Your task to perform on an android device: Open Android settings Image 0: 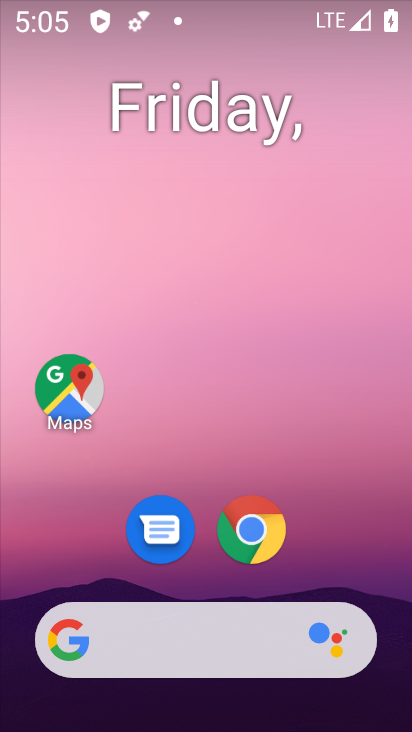
Step 0: drag from (341, 548) to (263, 56)
Your task to perform on an android device: Open Android settings Image 1: 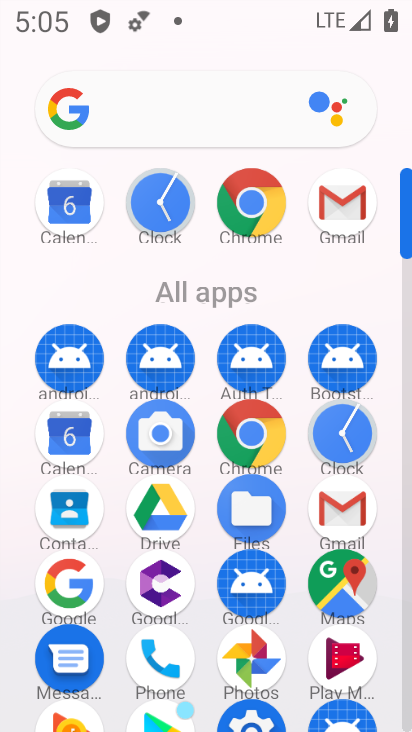
Step 1: click (243, 715)
Your task to perform on an android device: Open Android settings Image 2: 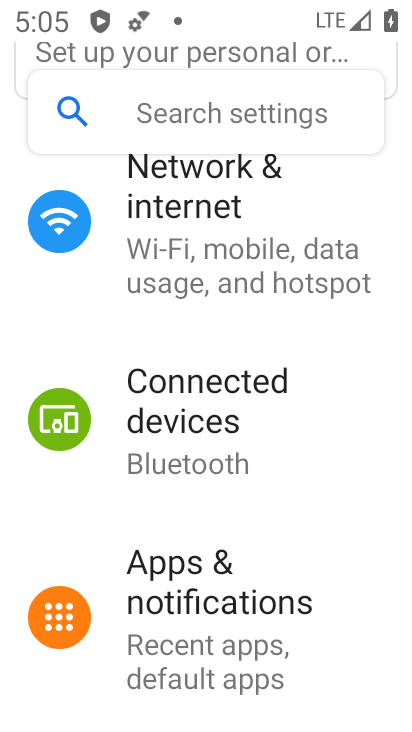
Step 2: drag from (298, 652) to (245, 66)
Your task to perform on an android device: Open Android settings Image 3: 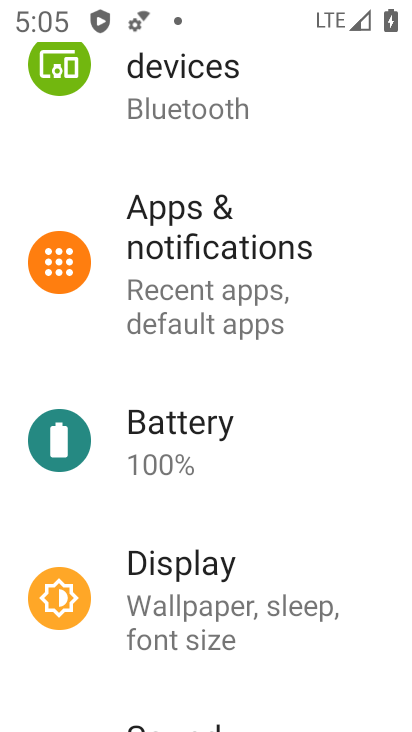
Step 3: drag from (275, 606) to (275, 56)
Your task to perform on an android device: Open Android settings Image 4: 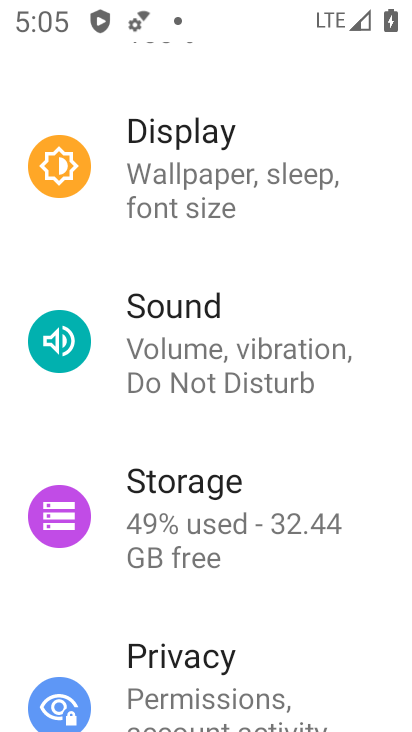
Step 4: drag from (242, 614) to (229, 181)
Your task to perform on an android device: Open Android settings Image 5: 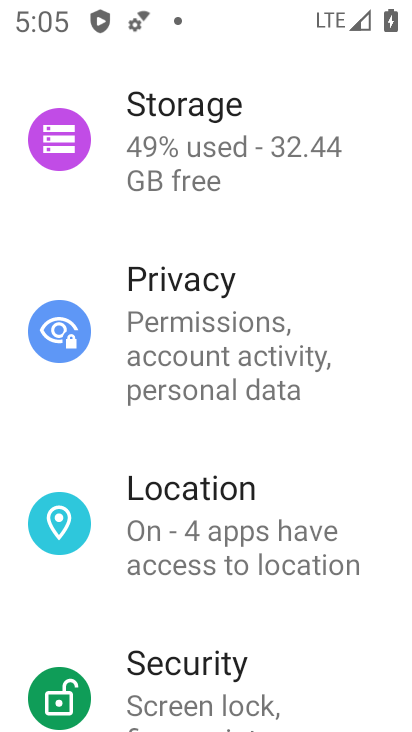
Step 5: drag from (234, 304) to (226, 118)
Your task to perform on an android device: Open Android settings Image 6: 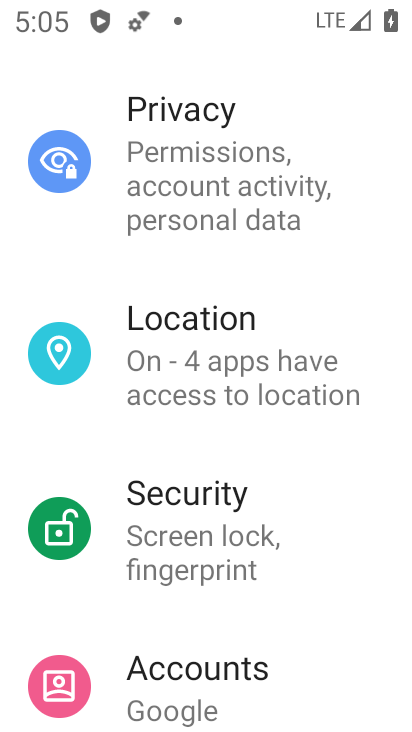
Step 6: drag from (281, 673) to (324, 69)
Your task to perform on an android device: Open Android settings Image 7: 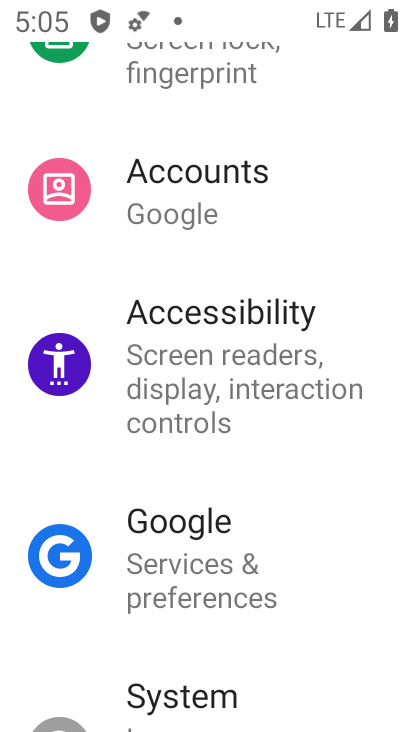
Step 7: drag from (259, 569) to (276, 128)
Your task to perform on an android device: Open Android settings Image 8: 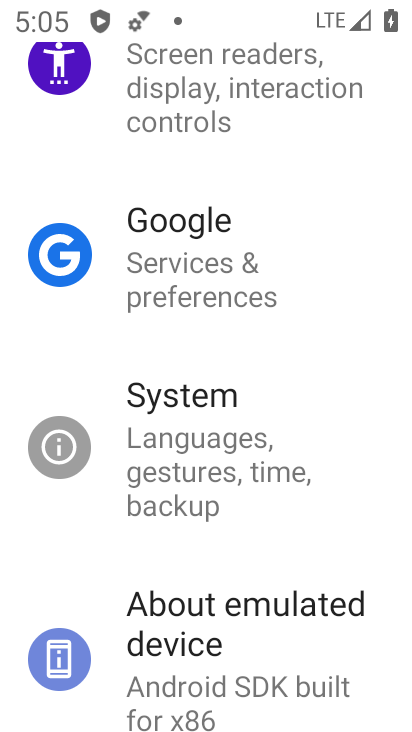
Step 8: drag from (200, 611) to (248, 311)
Your task to perform on an android device: Open Android settings Image 9: 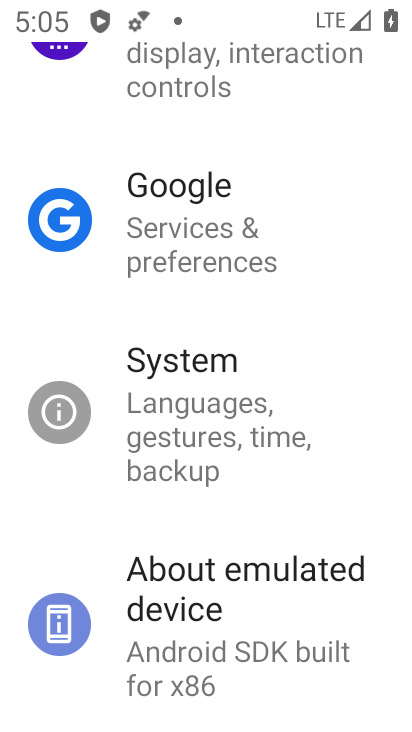
Step 9: drag from (274, 612) to (295, 308)
Your task to perform on an android device: Open Android settings Image 10: 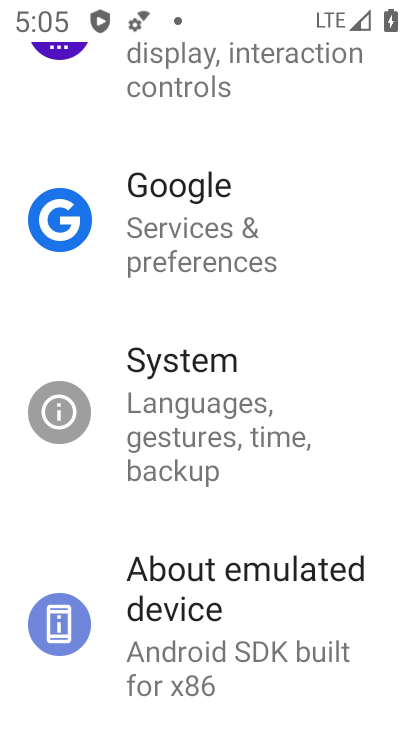
Step 10: click (242, 607)
Your task to perform on an android device: Open Android settings Image 11: 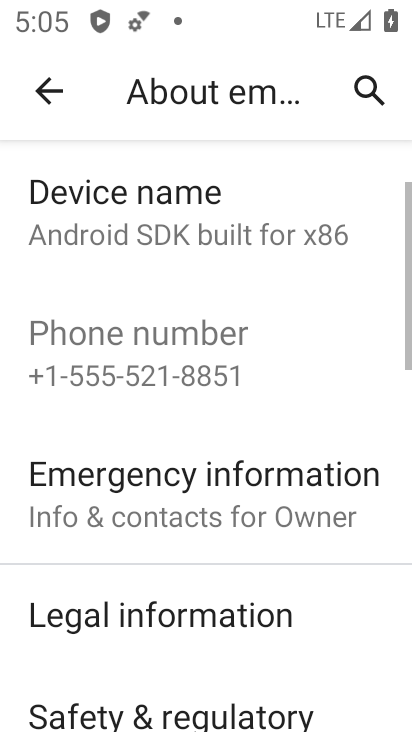
Step 11: drag from (298, 445) to (273, 155)
Your task to perform on an android device: Open Android settings Image 12: 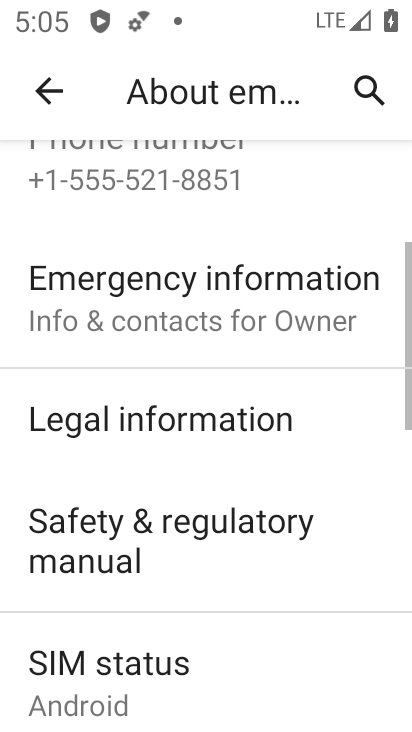
Step 12: drag from (225, 613) to (246, 195)
Your task to perform on an android device: Open Android settings Image 13: 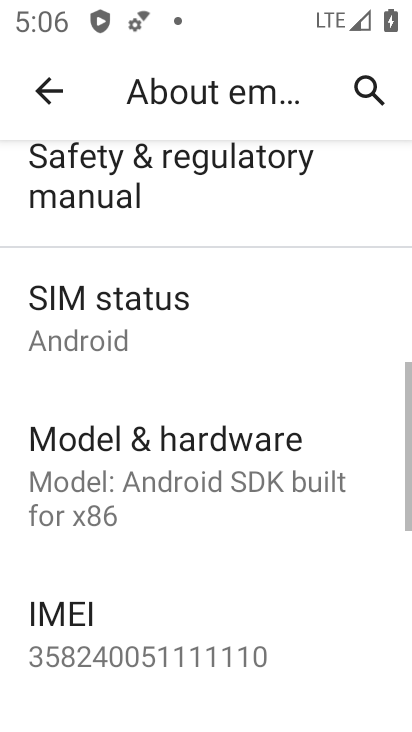
Step 13: drag from (155, 532) to (174, 215)
Your task to perform on an android device: Open Android settings Image 14: 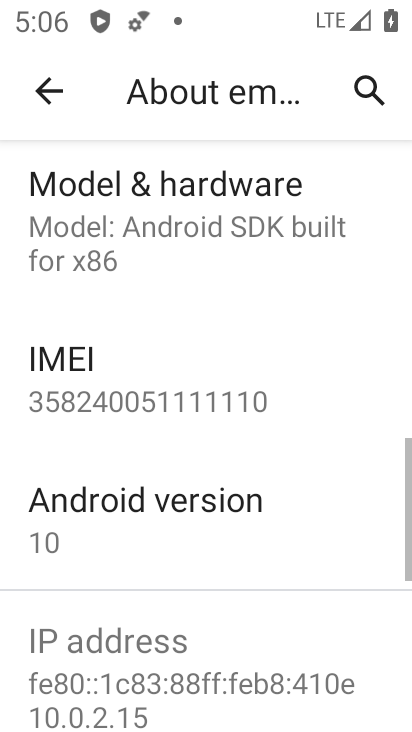
Step 14: click (182, 507)
Your task to perform on an android device: Open Android settings Image 15: 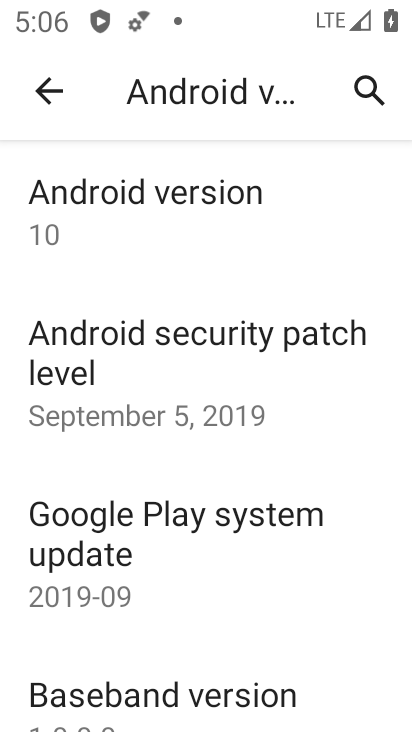
Step 15: task complete